Your task to perform on an android device: Search for seafood restaurants on Google Maps Image 0: 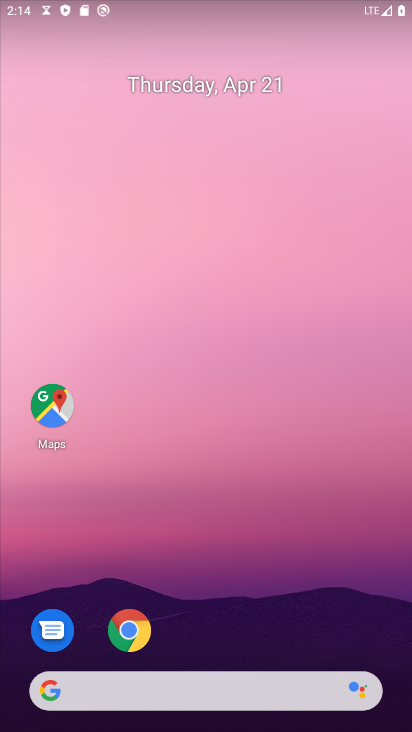
Step 0: click (49, 407)
Your task to perform on an android device: Search for seafood restaurants on Google Maps Image 1: 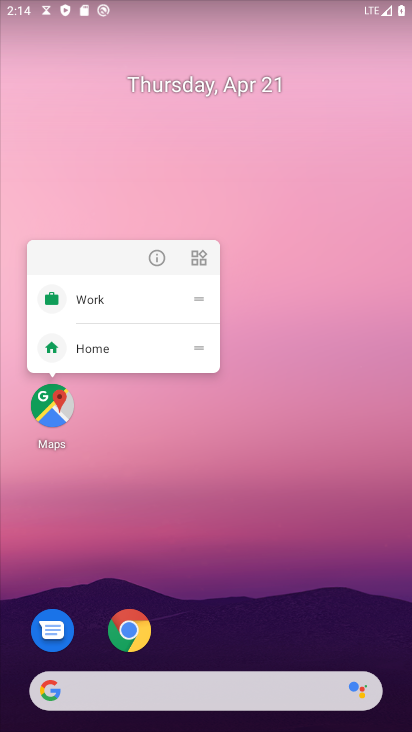
Step 1: click (52, 402)
Your task to perform on an android device: Search for seafood restaurants on Google Maps Image 2: 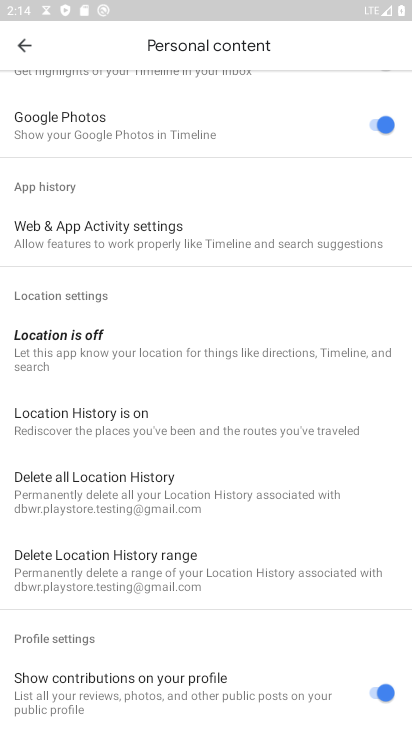
Step 2: click (23, 48)
Your task to perform on an android device: Search for seafood restaurants on Google Maps Image 3: 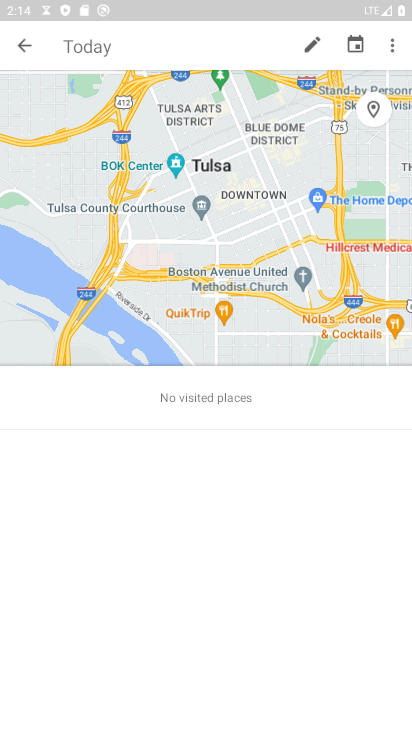
Step 3: click (23, 48)
Your task to perform on an android device: Search for seafood restaurants on Google Maps Image 4: 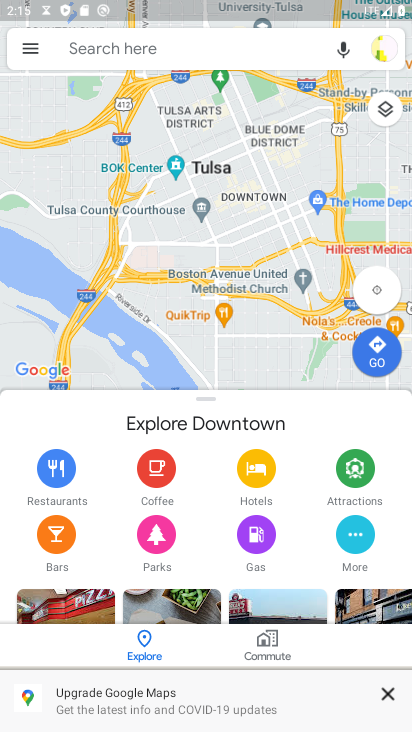
Step 4: click (84, 46)
Your task to perform on an android device: Search for seafood restaurants on Google Maps Image 5: 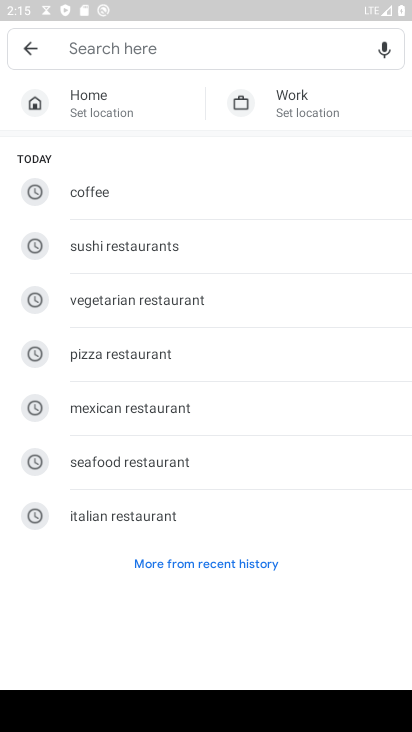
Step 5: type "seafood restaurant"
Your task to perform on an android device: Search for seafood restaurants on Google Maps Image 6: 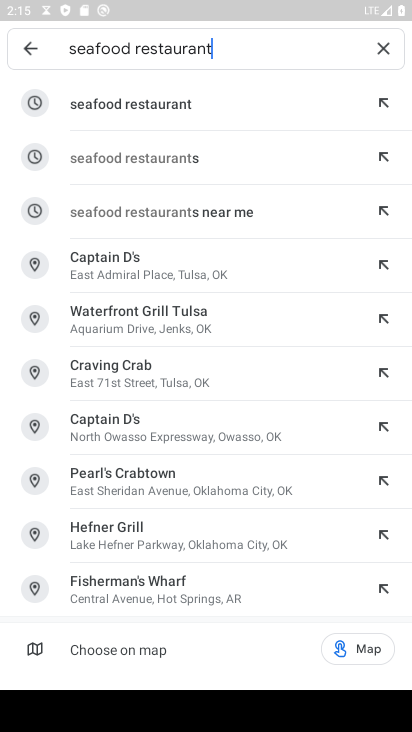
Step 6: click (133, 110)
Your task to perform on an android device: Search for seafood restaurants on Google Maps Image 7: 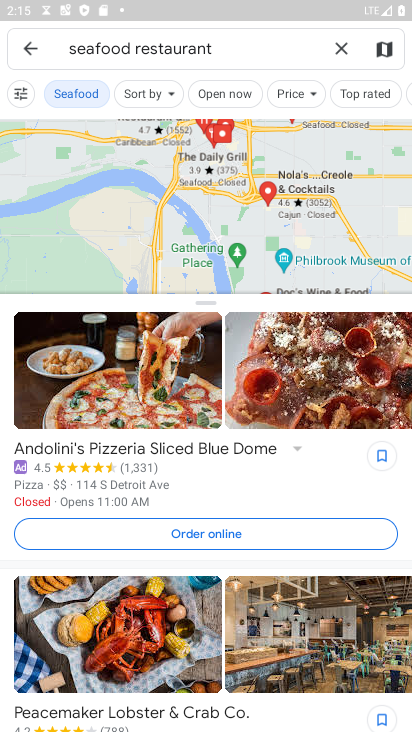
Step 7: task complete